Your task to perform on an android device: check data usage Image 0: 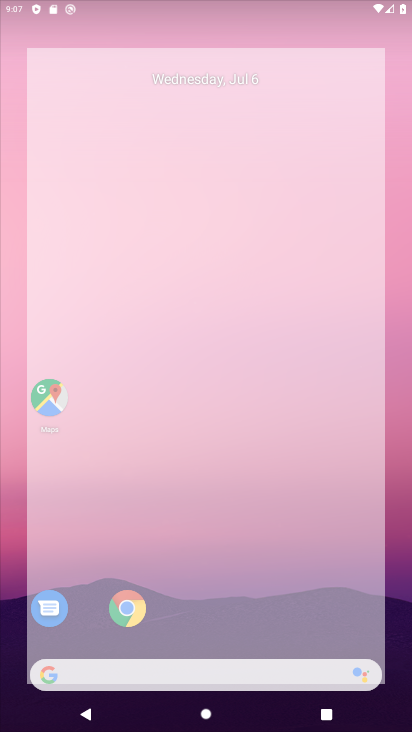
Step 0: drag from (244, 566) to (171, 191)
Your task to perform on an android device: check data usage Image 1: 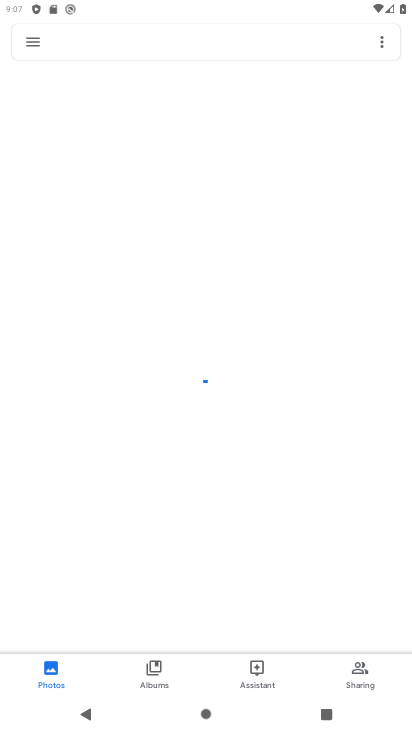
Step 1: press home button
Your task to perform on an android device: check data usage Image 2: 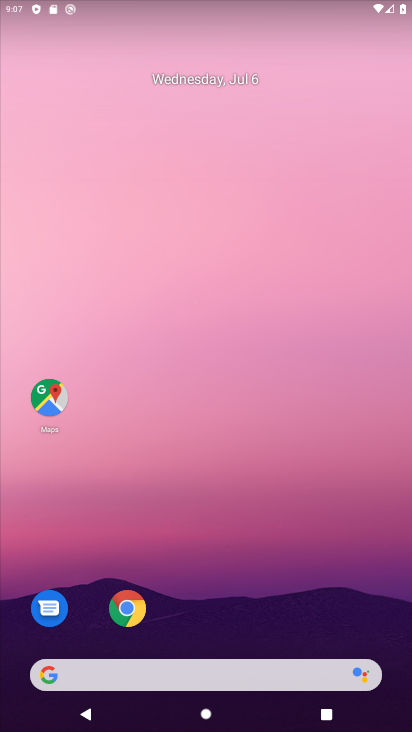
Step 2: drag from (214, 575) to (163, 148)
Your task to perform on an android device: check data usage Image 3: 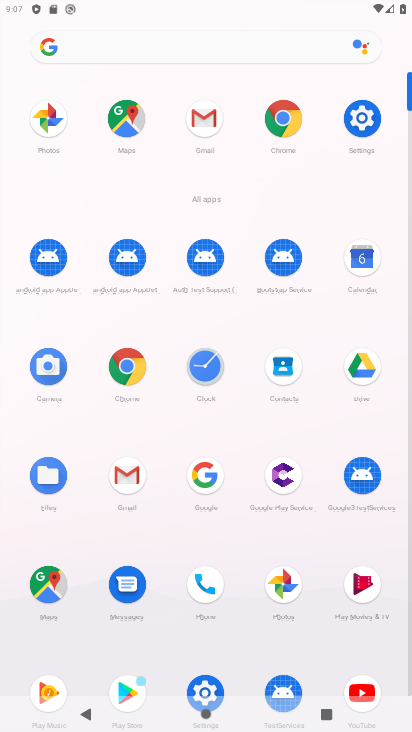
Step 3: click (357, 116)
Your task to perform on an android device: check data usage Image 4: 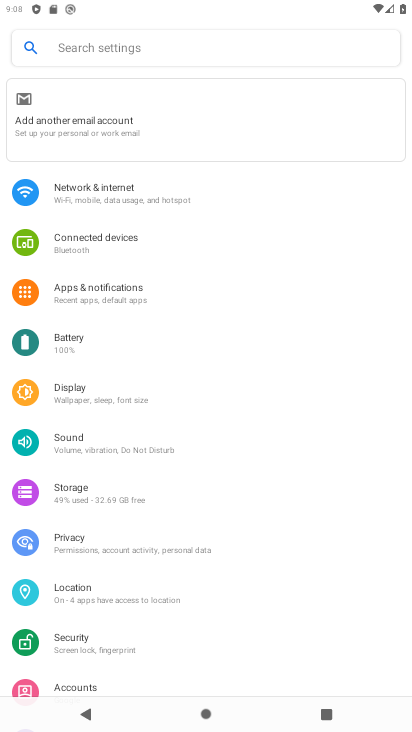
Step 4: click (91, 189)
Your task to perform on an android device: check data usage Image 5: 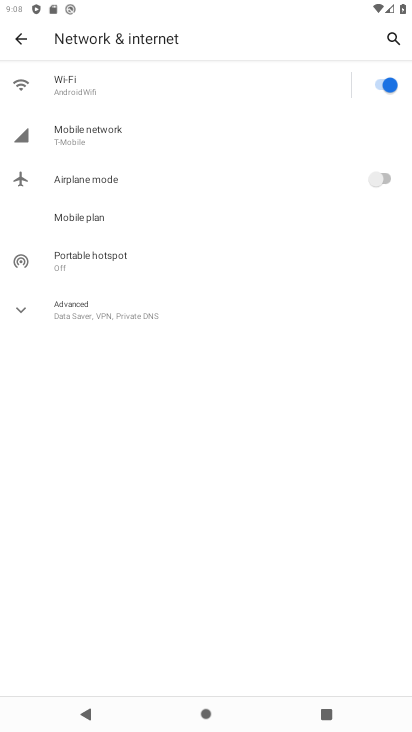
Step 5: click (80, 130)
Your task to perform on an android device: check data usage Image 6: 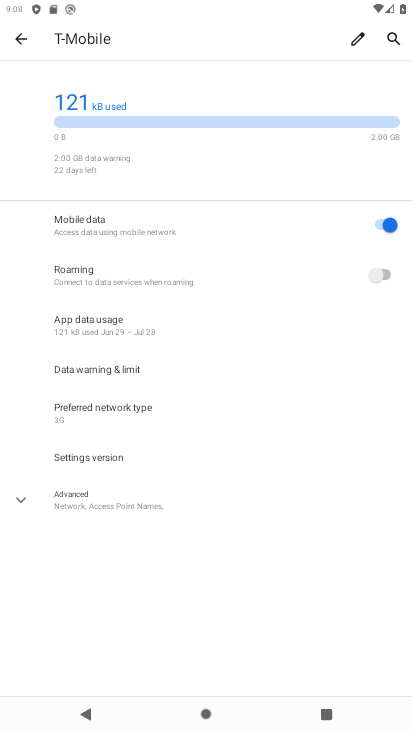
Step 6: task complete